Your task to perform on an android device: remove spam from my inbox in the gmail app Image 0: 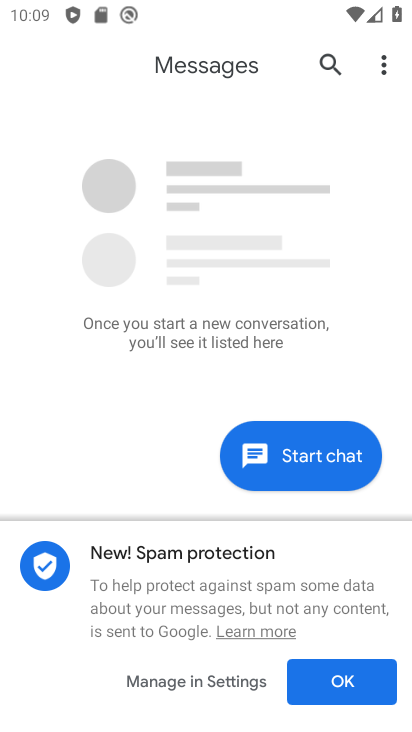
Step 0: press home button
Your task to perform on an android device: remove spam from my inbox in the gmail app Image 1: 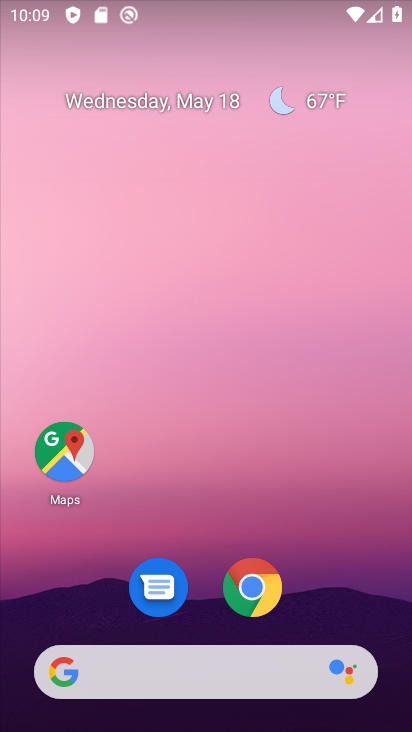
Step 1: drag from (341, 601) to (326, 256)
Your task to perform on an android device: remove spam from my inbox in the gmail app Image 2: 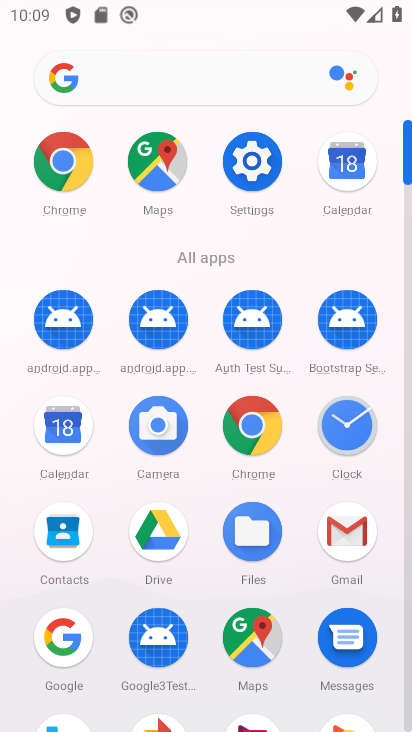
Step 2: click (353, 550)
Your task to perform on an android device: remove spam from my inbox in the gmail app Image 3: 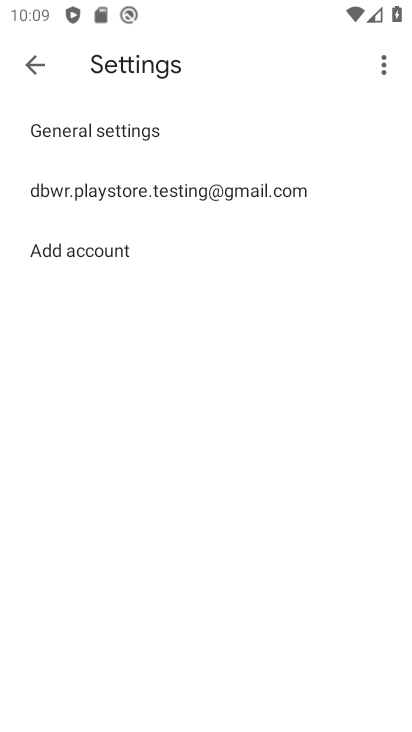
Step 3: press back button
Your task to perform on an android device: remove spam from my inbox in the gmail app Image 4: 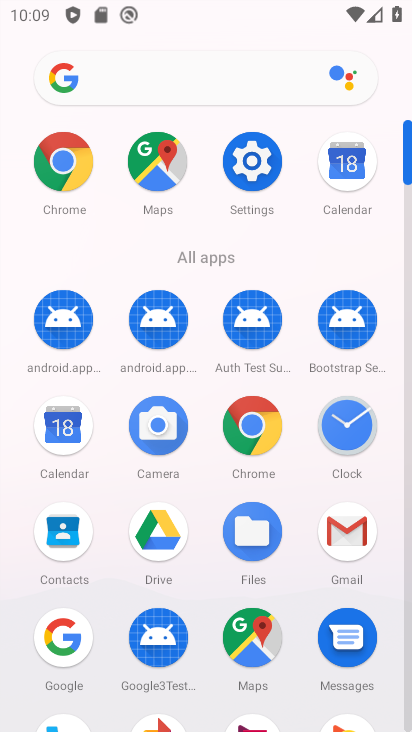
Step 4: click (353, 538)
Your task to perform on an android device: remove spam from my inbox in the gmail app Image 5: 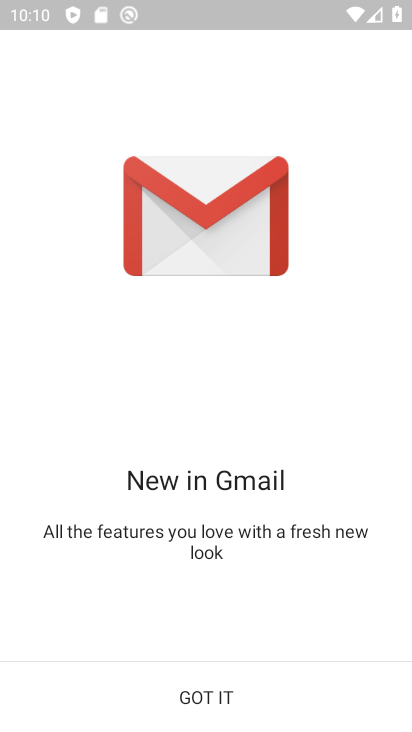
Step 5: click (231, 686)
Your task to perform on an android device: remove spam from my inbox in the gmail app Image 6: 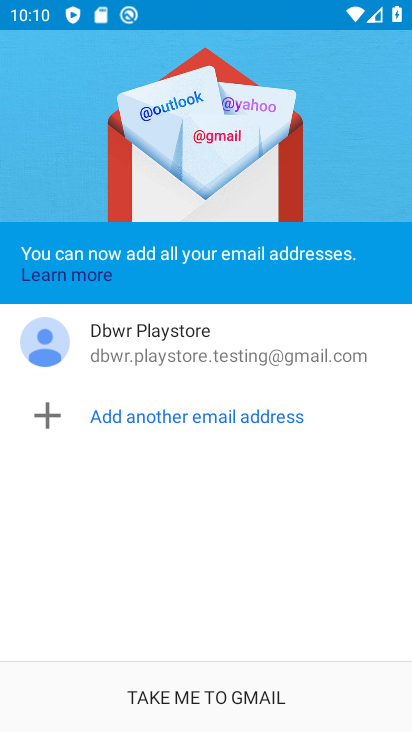
Step 6: click (147, 709)
Your task to perform on an android device: remove spam from my inbox in the gmail app Image 7: 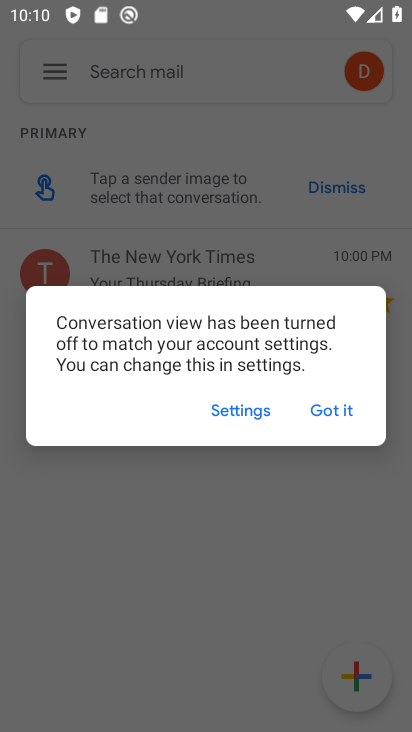
Step 7: click (320, 409)
Your task to perform on an android device: remove spam from my inbox in the gmail app Image 8: 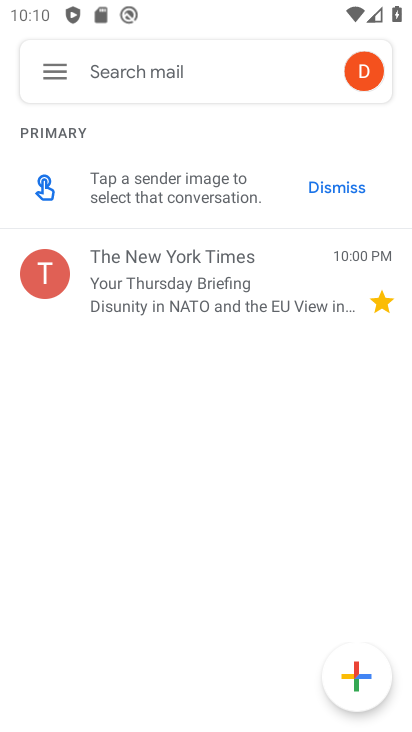
Step 8: click (44, 64)
Your task to perform on an android device: remove spam from my inbox in the gmail app Image 9: 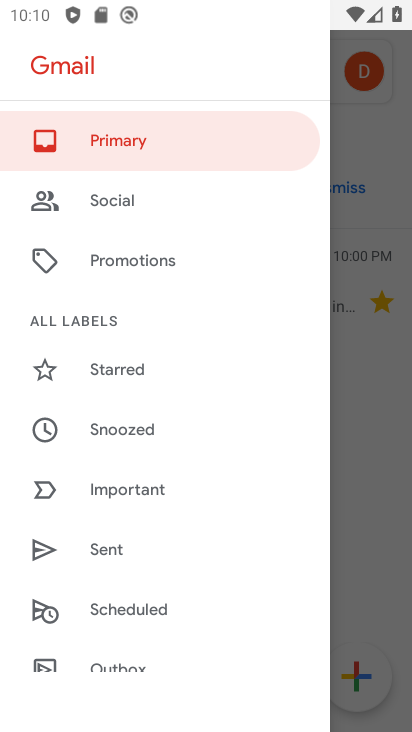
Step 9: drag from (186, 461) to (174, 284)
Your task to perform on an android device: remove spam from my inbox in the gmail app Image 10: 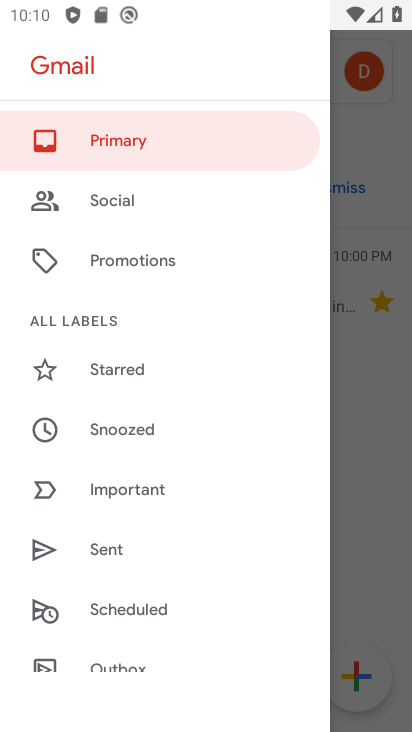
Step 10: drag from (245, 530) to (231, 264)
Your task to perform on an android device: remove spam from my inbox in the gmail app Image 11: 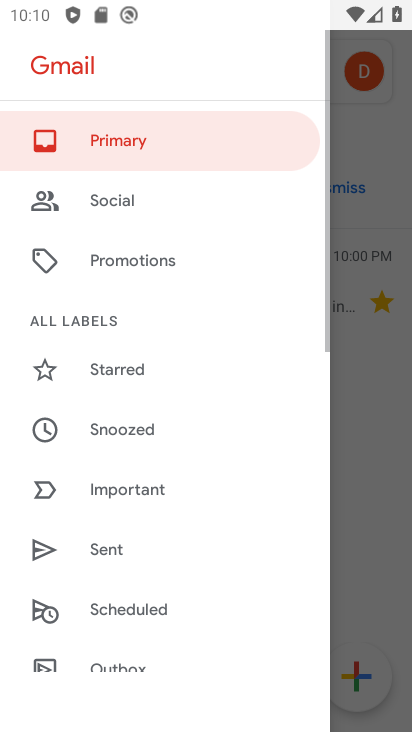
Step 11: drag from (206, 626) to (225, 249)
Your task to perform on an android device: remove spam from my inbox in the gmail app Image 12: 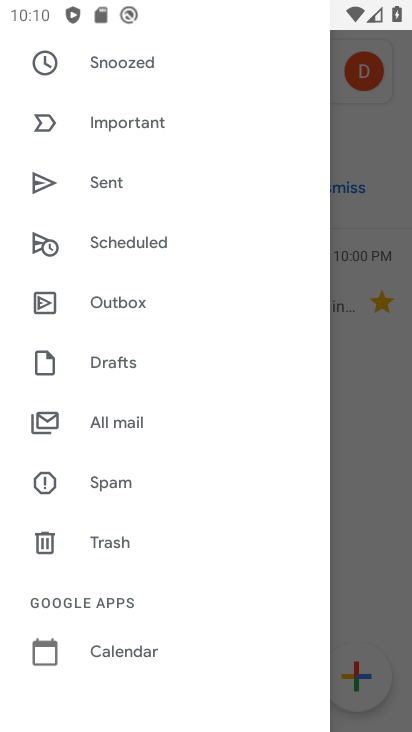
Step 12: drag from (189, 564) to (232, 154)
Your task to perform on an android device: remove spam from my inbox in the gmail app Image 13: 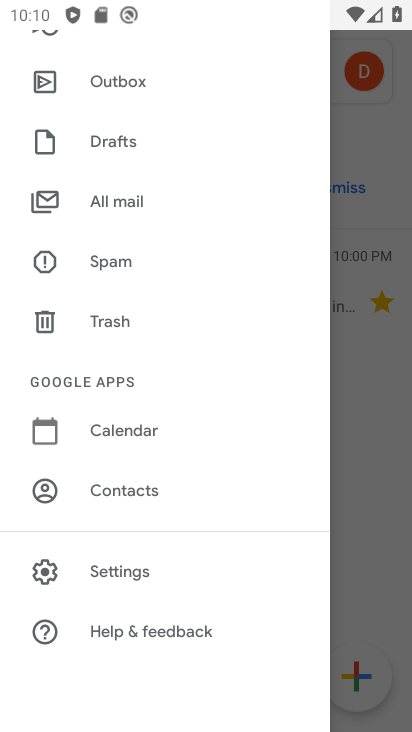
Step 13: drag from (196, 232) to (160, 531)
Your task to perform on an android device: remove spam from my inbox in the gmail app Image 14: 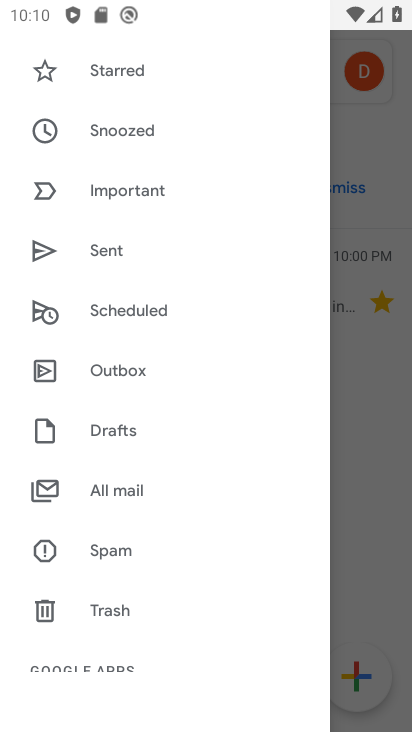
Step 14: drag from (203, 185) to (147, 503)
Your task to perform on an android device: remove spam from my inbox in the gmail app Image 15: 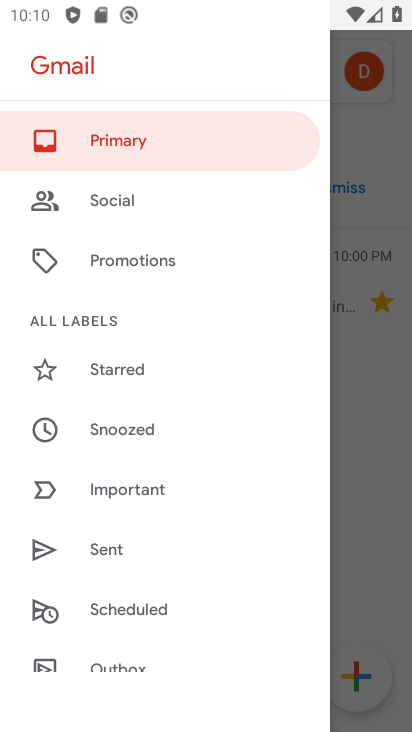
Step 15: drag from (168, 569) to (158, 159)
Your task to perform on an android device: remove spam from my inbox in the gmail app Image 16: 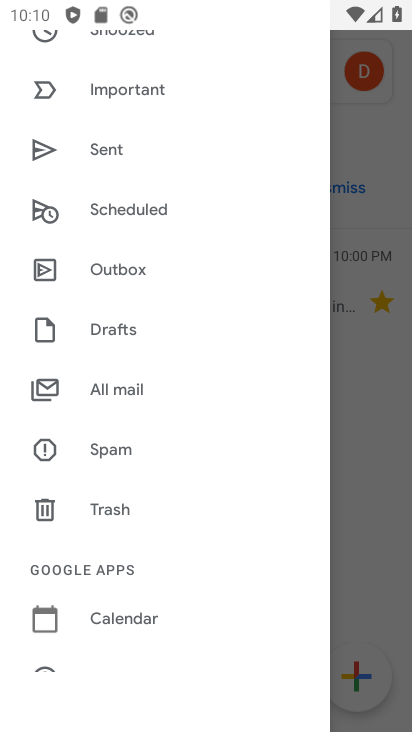
Step 16: click (116, 450)
Your task to perform on an android device: remove spam from my inbox in the gmail app Image 17: 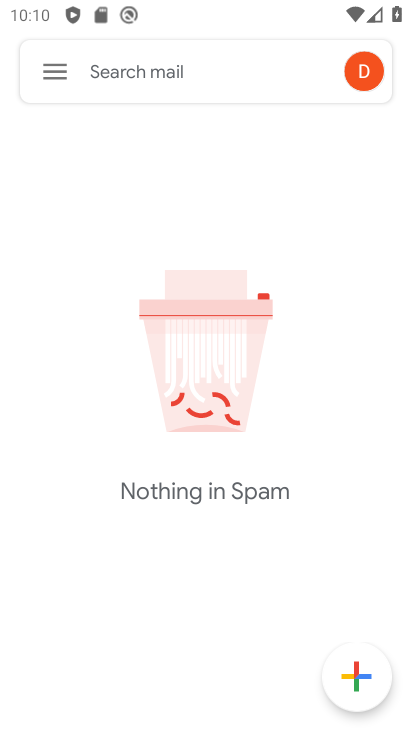
Step 17: task complete